Your task to perform on an android device: Go to Google Image 0: 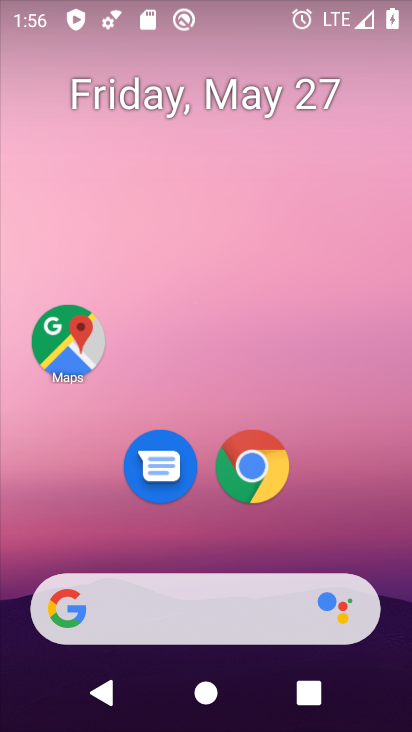
Step 0: drag from (294, 421) to (281, 11)
Your task to perform on an android device: Go to Google Image 1: 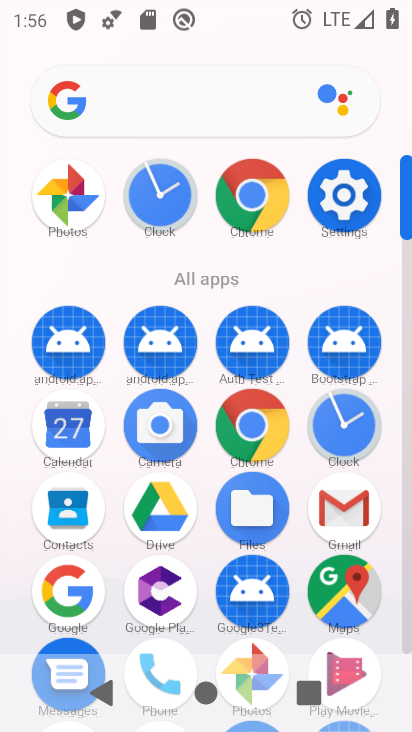
Step 1: click (46, 589)
Your task to perform on an android device: Go to Google Image 2: 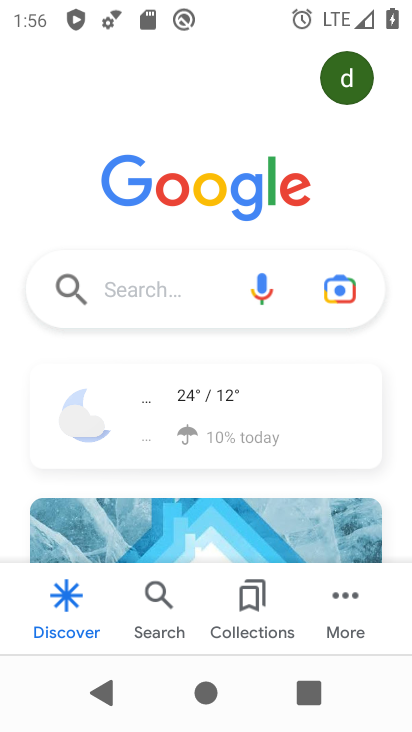
Step 2: task complete